Your task to perform on an android device: Open settings on Google Maps Image 0: 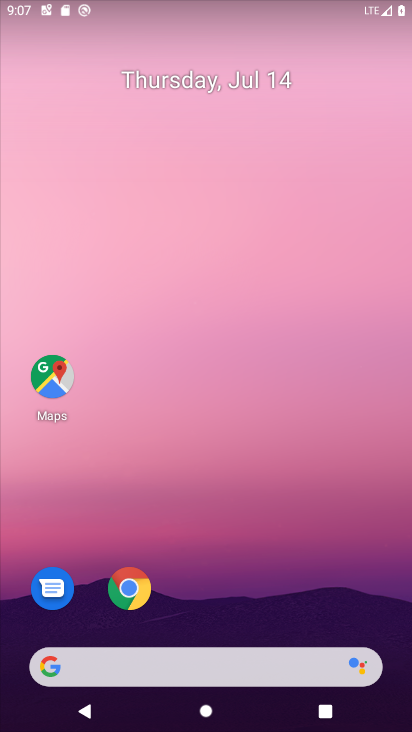
Step 0: drag from (261, 578) to (263, 94)
Your task to perform on an android device: Open settings on Google Maps Image 1: 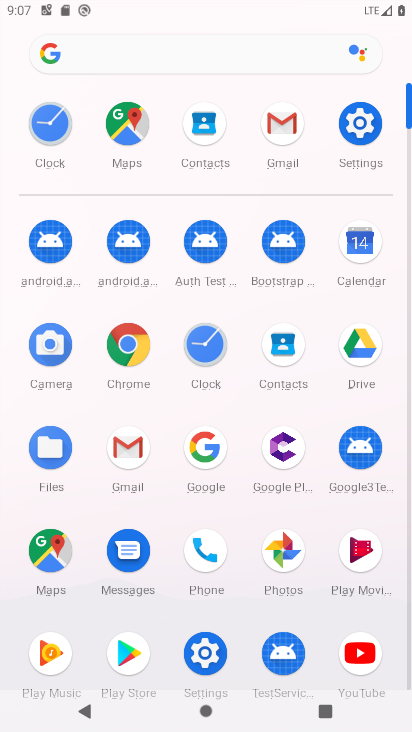
Step 1: click (43, 554)
Your task to perform on an android device: Open settings on Google Maps Image 2: 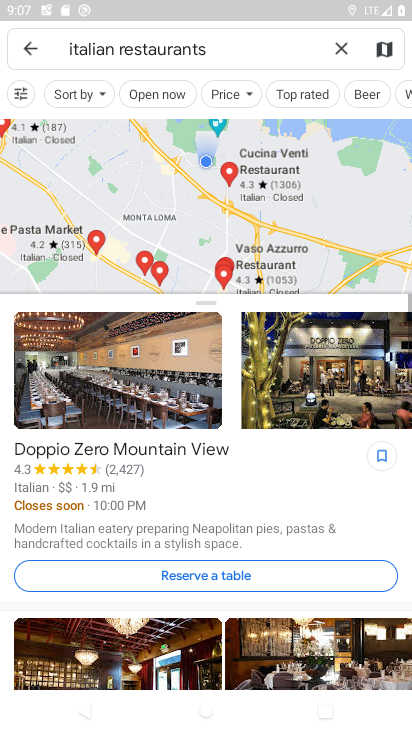
Step 2: click (337, 43)
Your task to perform on an android device: Open settings on Google Maps Image 3: 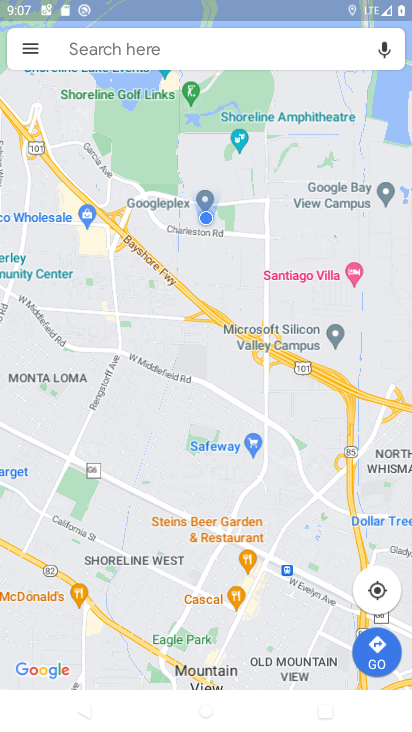
Step 3: click (30, 48)
Your task to perform on an android device: Open settings on Google Maps Image 4: 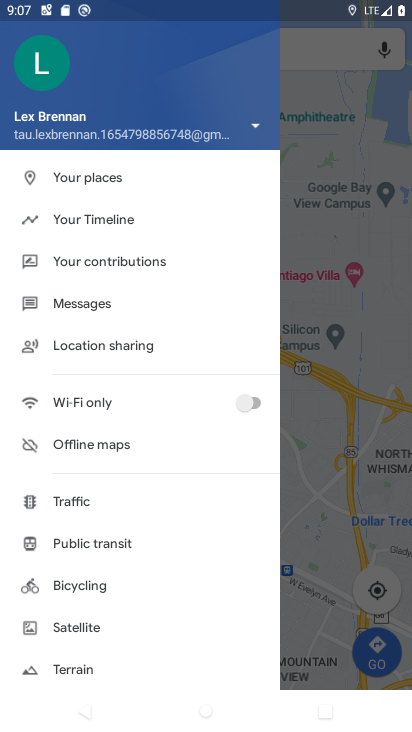
Step 4: drag from (109, 655) to (94, 295)
Your task to perform on an android device: Open settings on Google Maps Image 5: 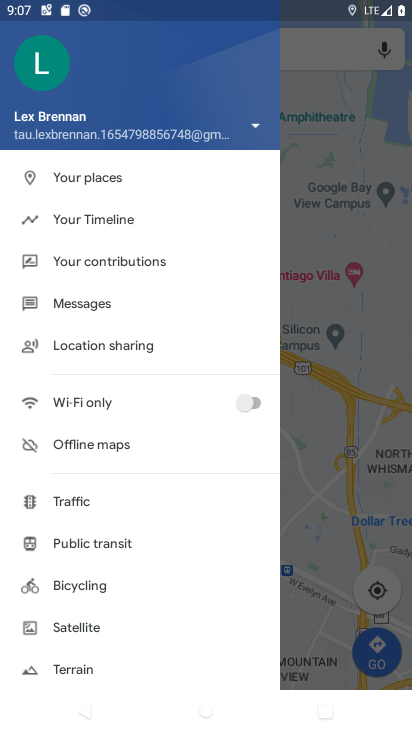
Step 5: drag from (43, 574) to (65, 236)
Your task to perform on an android device: Open settings on Google Maps Image 6: 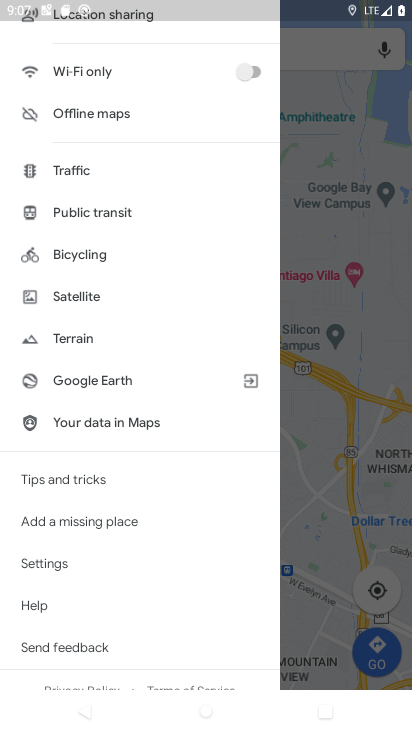
Step 6: click (31, 565)
Your task to perform on an android device: Open settings on Google Maps Image 7: 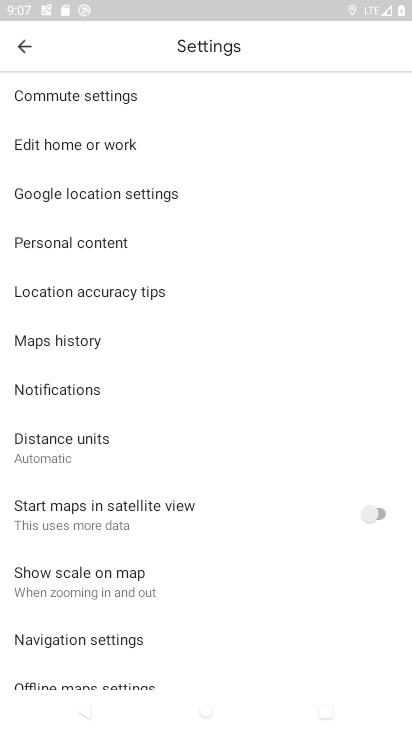
Step 7: task complete